Your task to perform on an android device: toggle notifications settings in the gmail app Image 0: 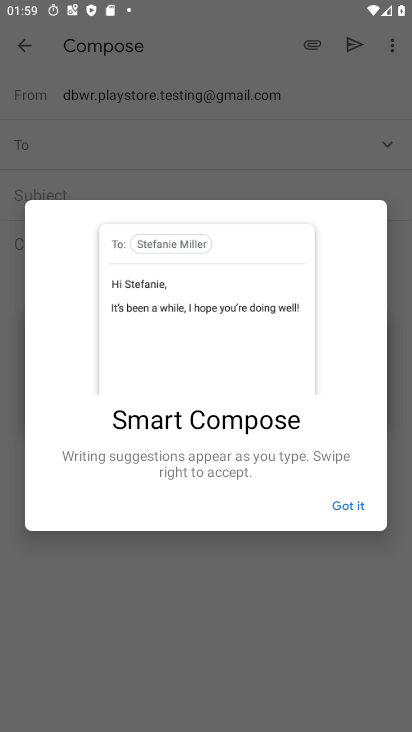
Step 0: press home button
Your task to perform on an android device: toggle notifications settings in the gmail app Image 1: 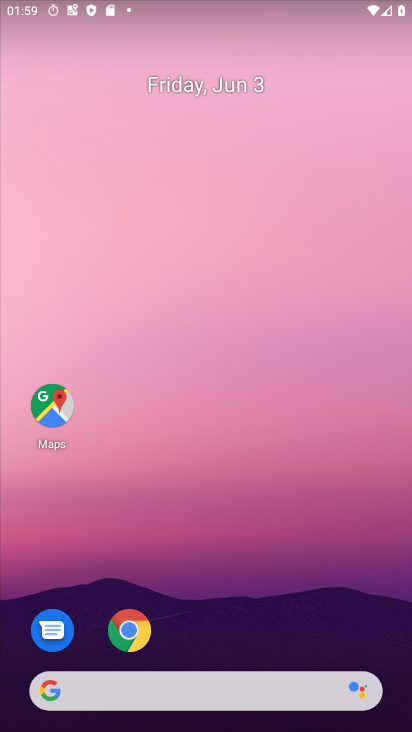
Step 1: drag from (272, 628) to (222, 224)
Your task to perform on an android device: toggle notifications settings in the gmail app Image 2: 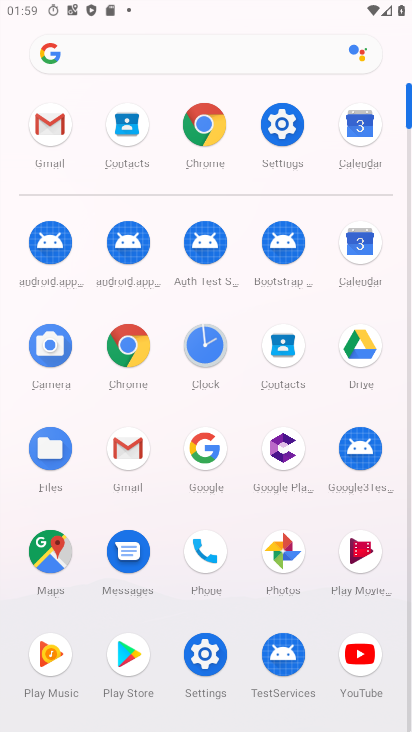
Step 2: click (48, 133)
Your task to perform on an android device: toggle notifications settings in the gmail app Image 3: 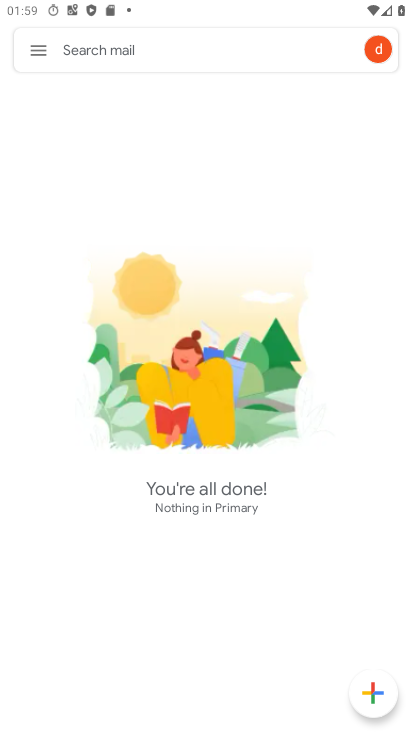
Step 3: click (36, 59)
Your task to perform on an android device: toggle notifications settings in the gmail app Image 4: 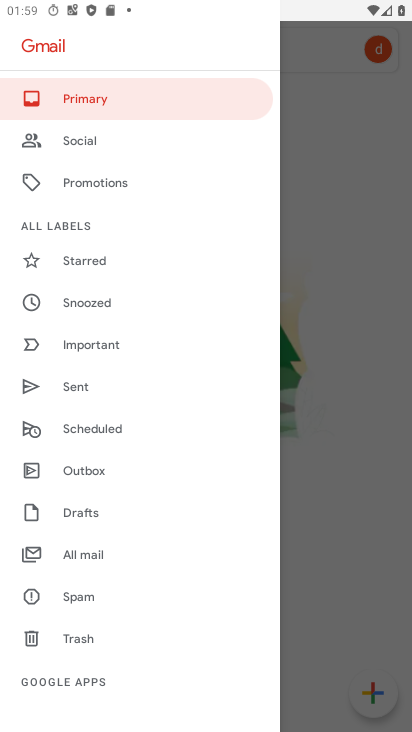
Step 4: drag from (94, 668) to (61, 366)
Your task to perform on an android device: toggle notifications settings in the gmail app Image 5: 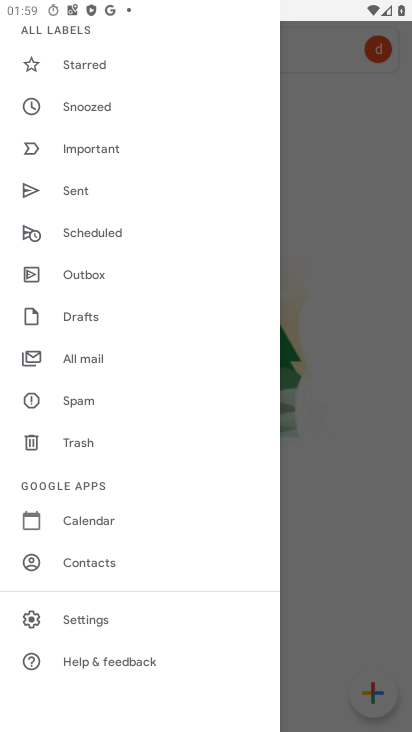
Step 5: click (103, 621)
Your task to perform on an android device: toggle notifications settings in the gmail app Image 6: 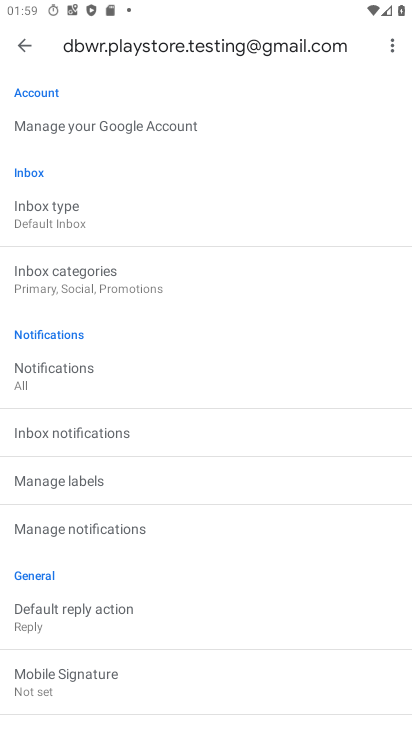
Step 6: click (163, 530)
Your task to perform on an android device: toggle notifications settings in the gmail app Image 7: 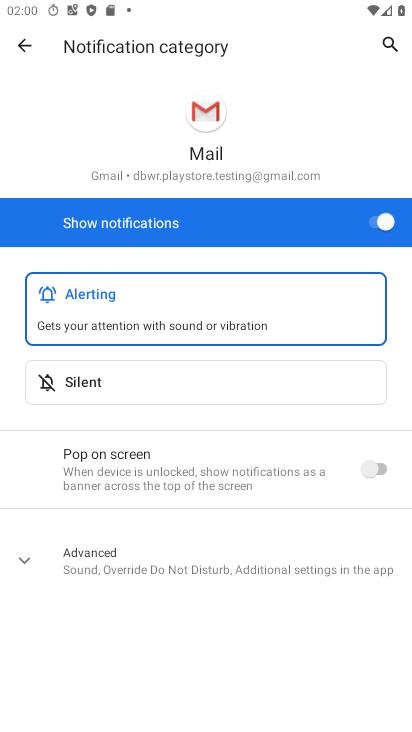
Step 7: click (330, 369)
Your task to perform on an android device: toggle notifications settings in the gmail app Image 8: 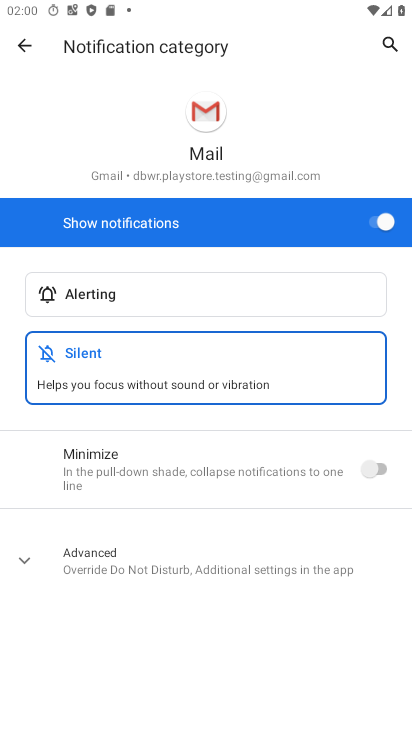
Step 8: click (376, 459)
Your task to perform on an android device: toggle notifications settings in the gmail app Image 9: 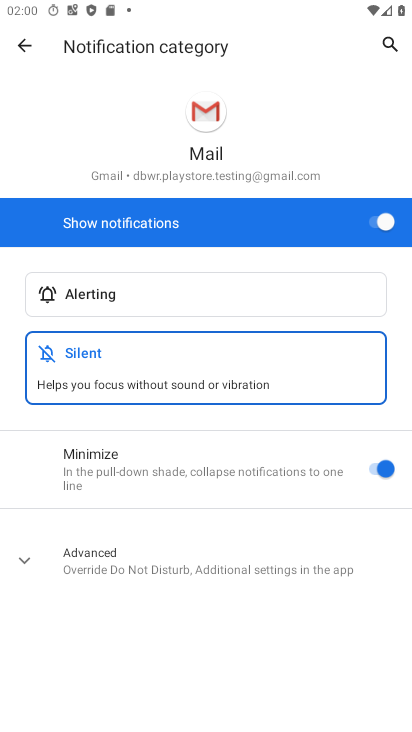
Step 9: task complete